Your task to perform on an android device: Open display settings Image 0: 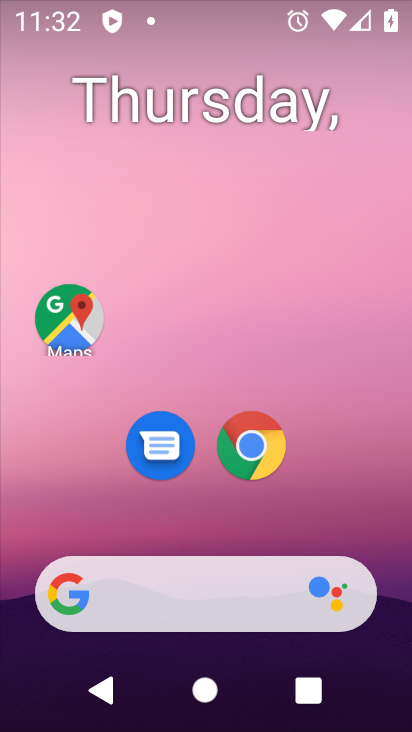
Step 0: drag from (336, 515) to (385, 0)
Your task to perform on an android device: Open display settings Image 1: 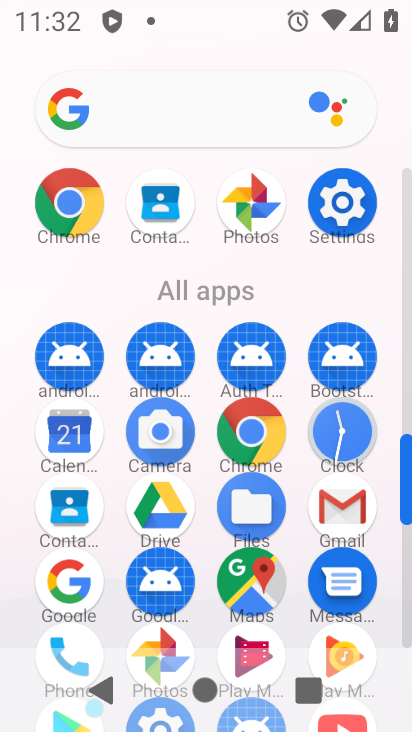
Step 1: click (343, 205)
Your task to perform on an android device: Open display settings Image 2: 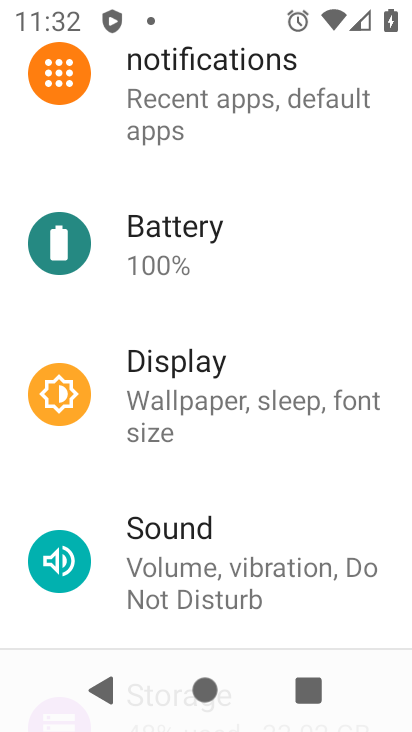
Step 2: drag from (238, 481) to (318, 143)
Your task to perform on an android device: Open display settings Image 3: 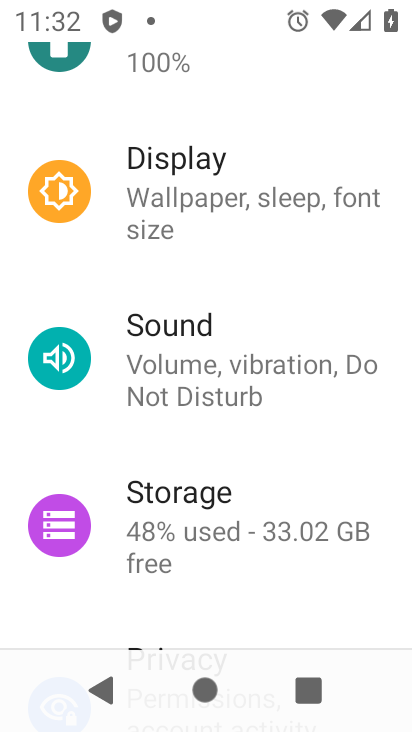
Step 3: click (150, 186)
Your task to perform on an android device: Open display settings Image 4: 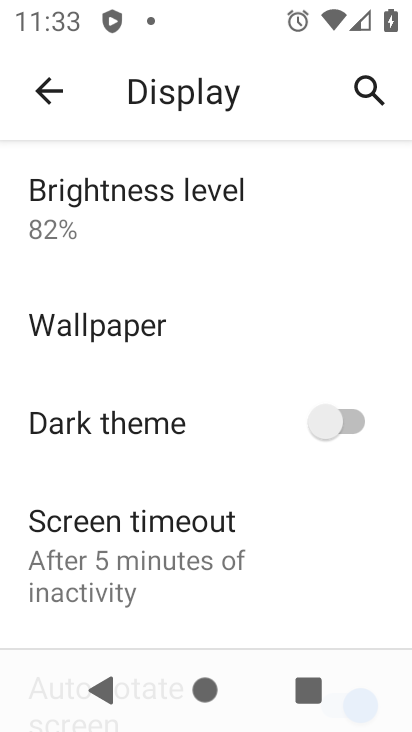
Step 4: task complete